Your task to perform on an android device: Set an alarm for 4pm Image 0: 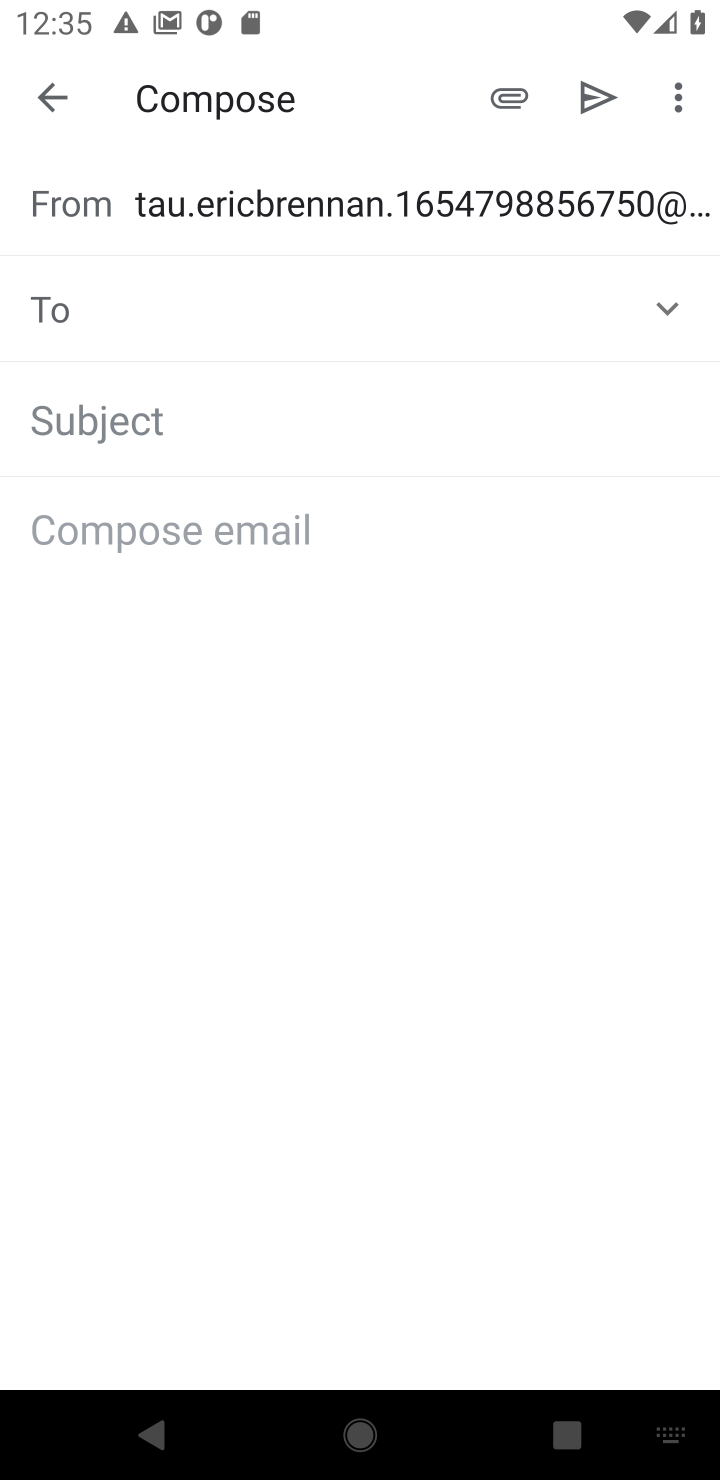
Step 0: press home button
Your task to perform on an android device: Set an alarm for 4pm Image 1: 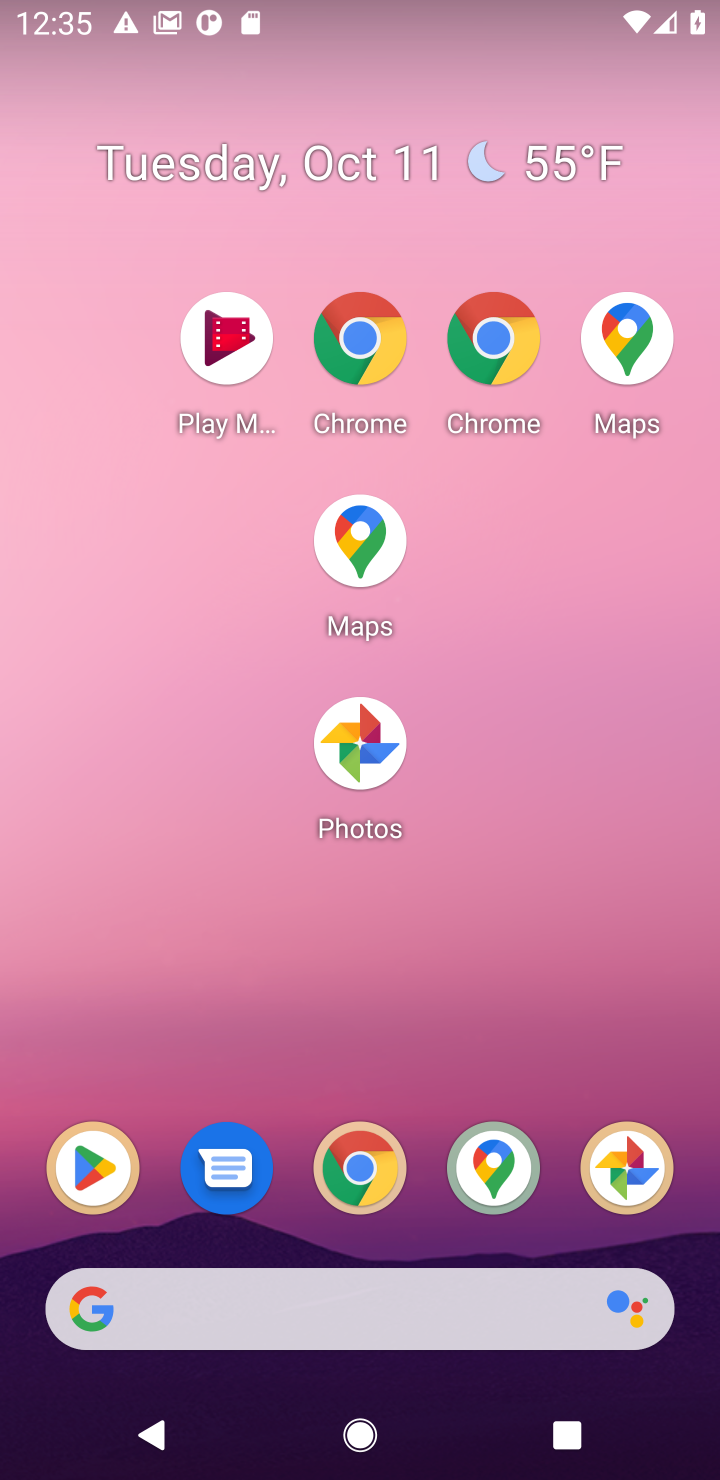
Step 1: drag from (475, 1178) to (436, 519)
Your task to perform on an android device: Set an alarm for 4pm Image 2: 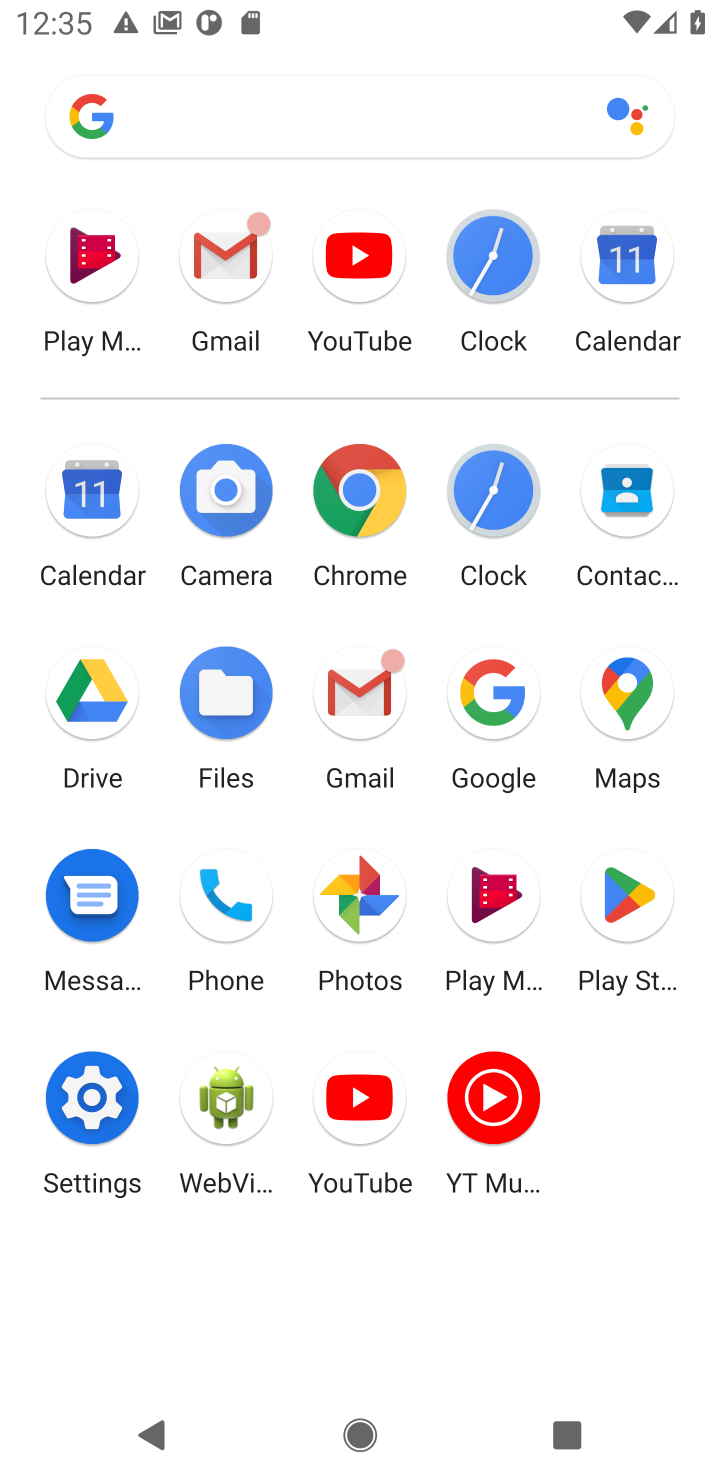
Step 2: click (514, 529)
Your task to perform on an android device: Set an alarm for 4pm Image 3: 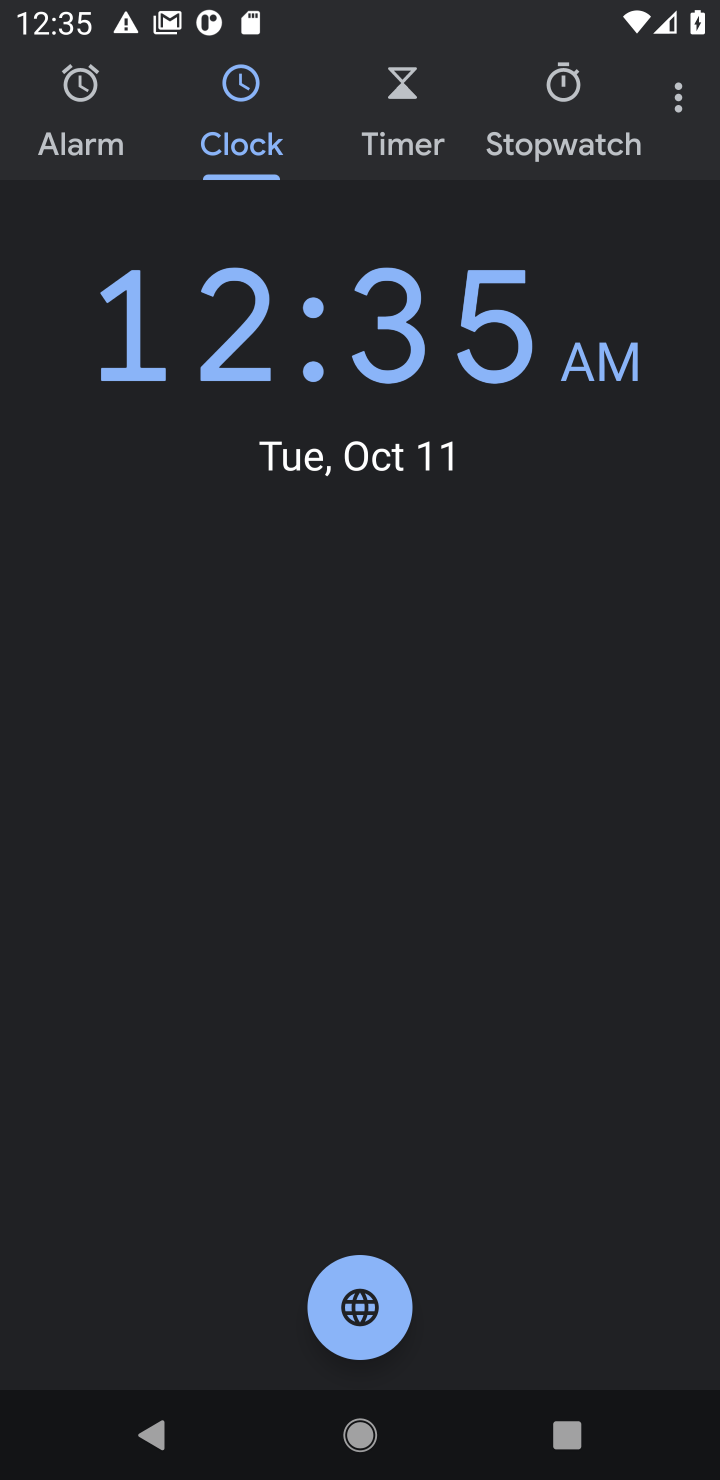
Step 3: click (82, 137)
Your task to perform on an android device: Set an alarm for 4pm Image 4: 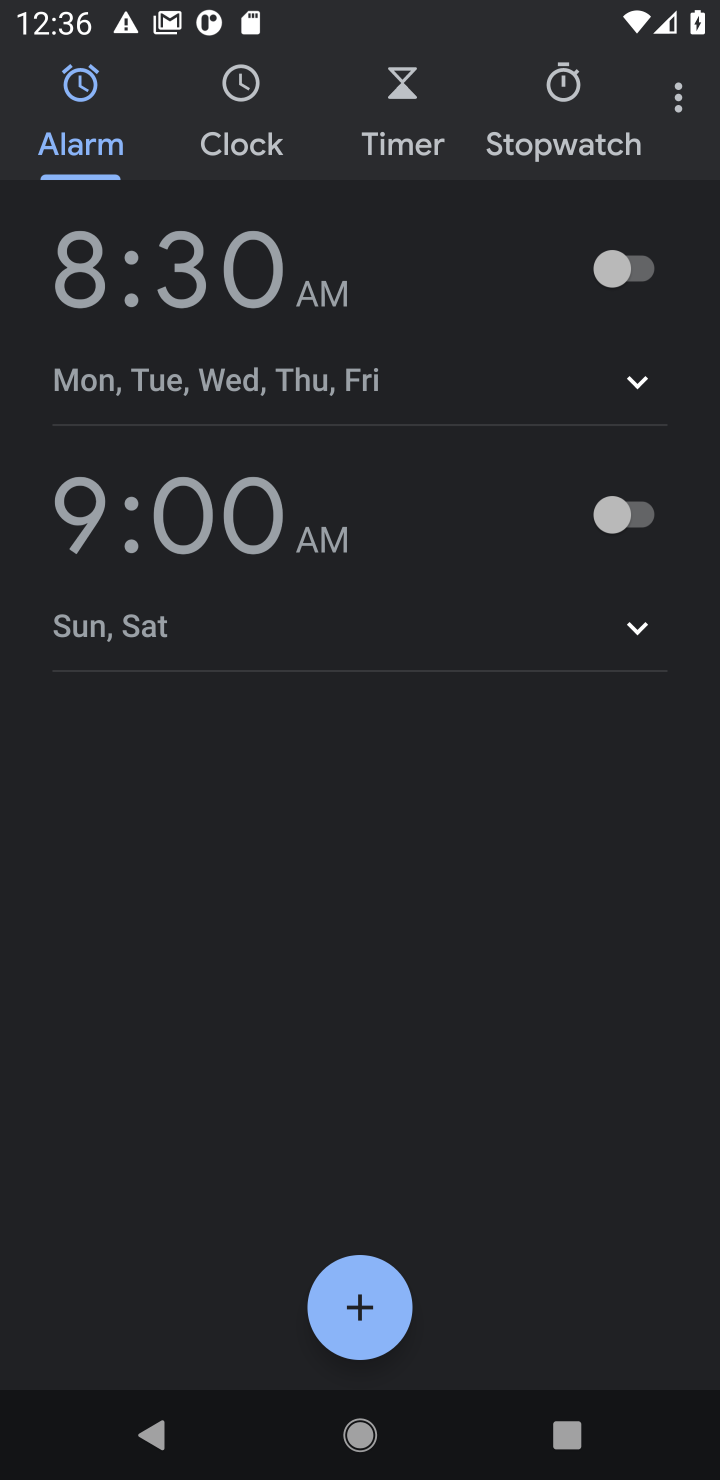
Step 4: click (345, 1312)
Your task to perform on an android device: Set an alarm for 4pm Image 5: 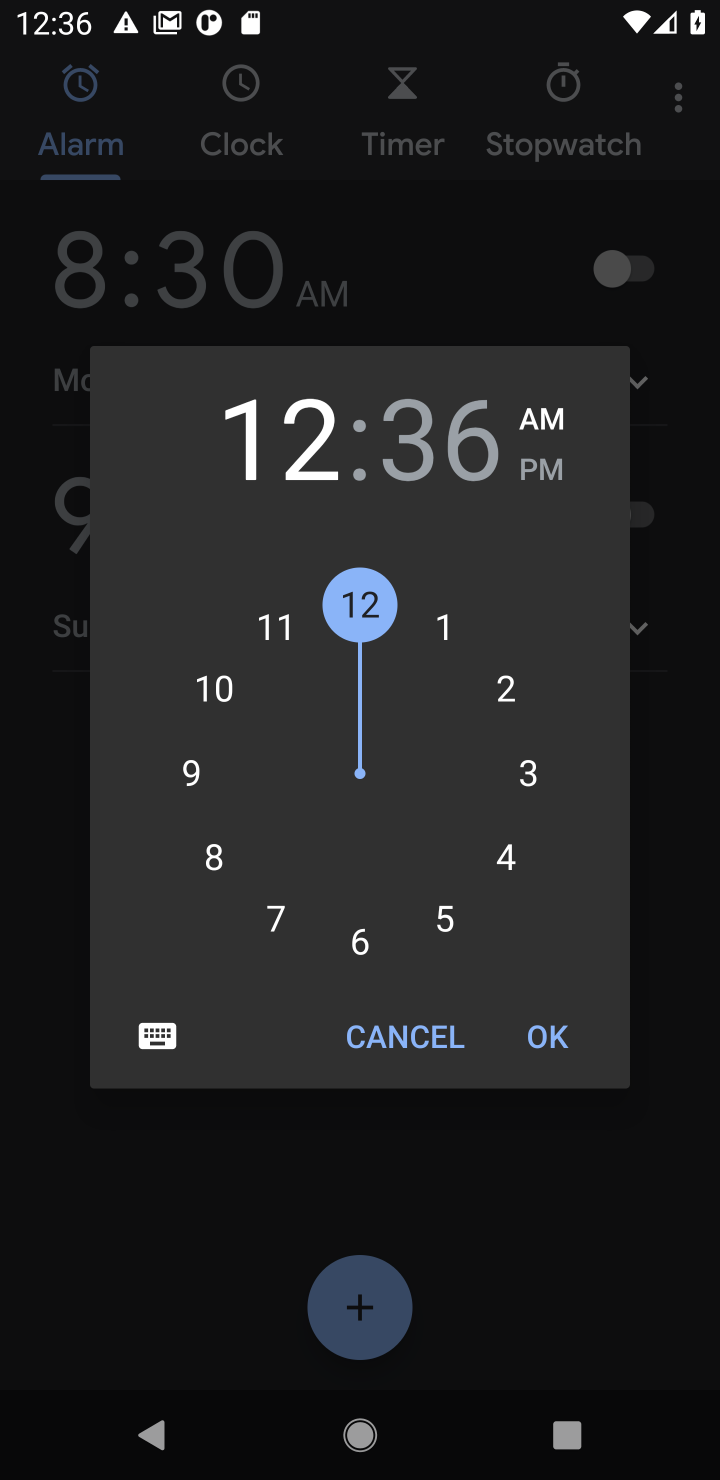
Step 5: click (515, 875)
Your task to perform on an android device: Set an alarm for 4pm Image 6: 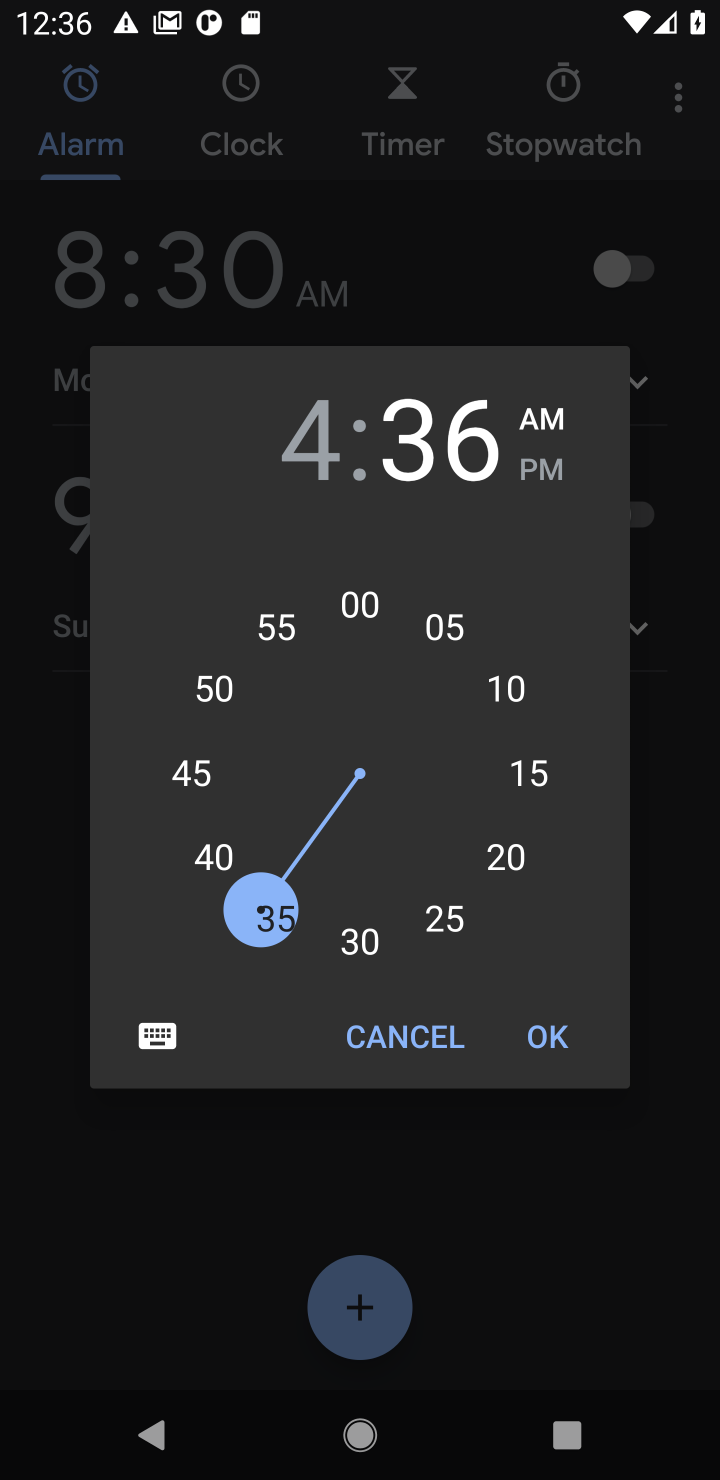
Step 6: click (369, 625)
Your task to perform on an android device: Set an alarm for 4pm Image 7: 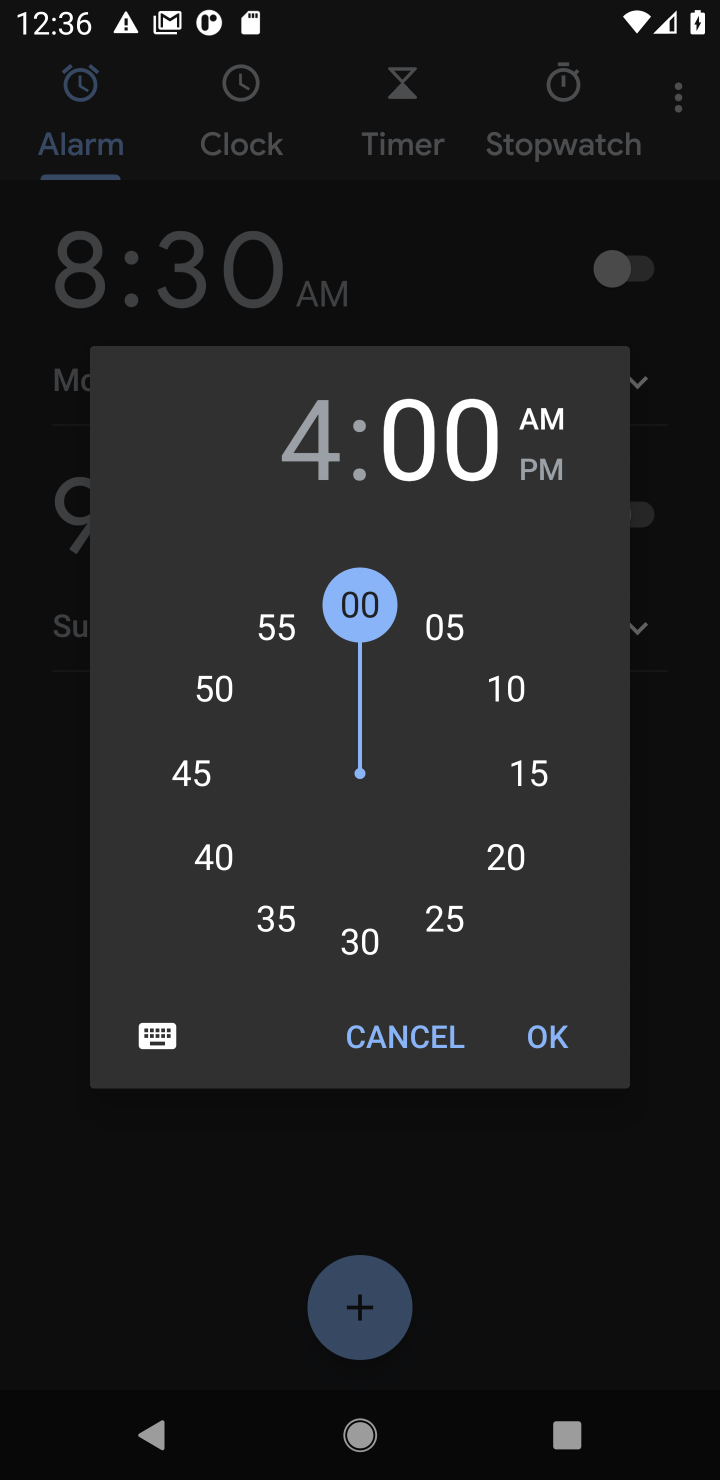
Step 7: click (558, 483)
Your task to perform on an android device: Set an alarm for 4pm Image 8: 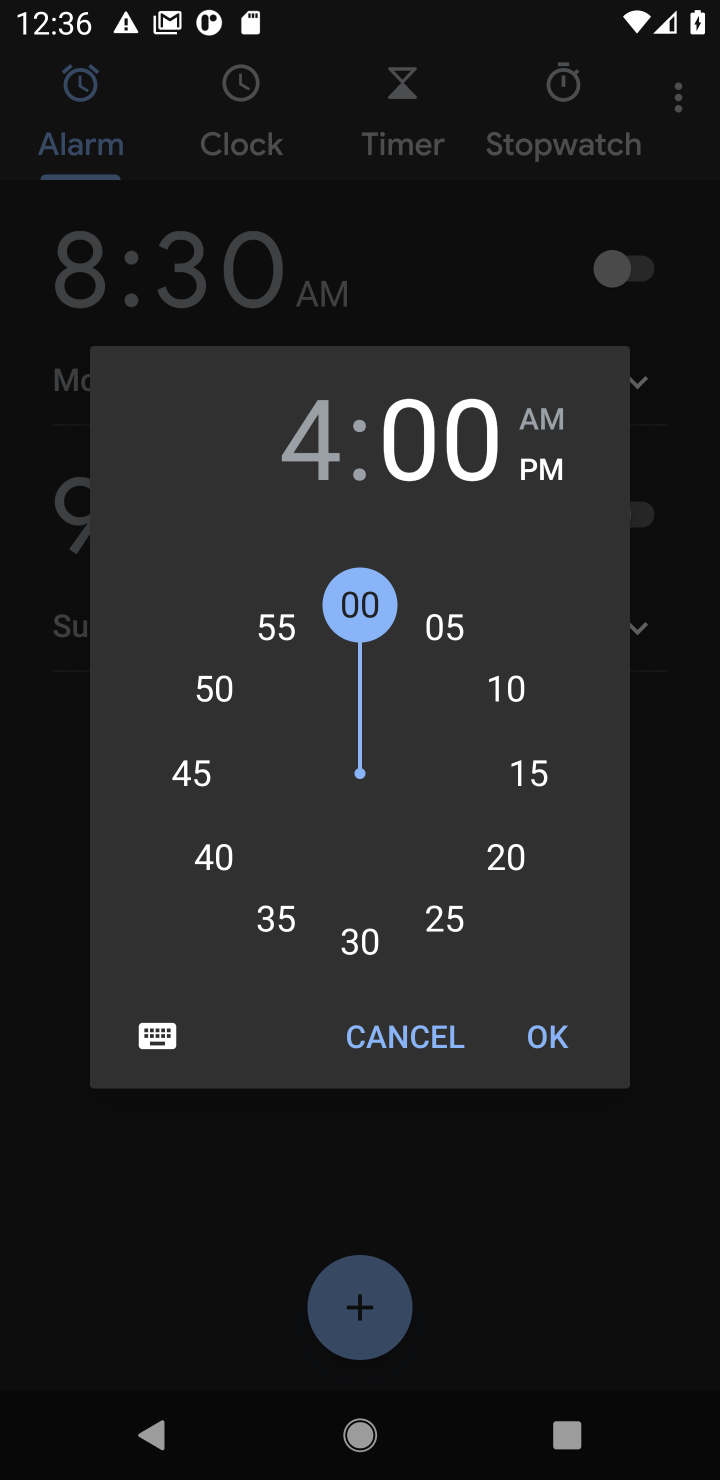
Step 8: click (544, 1044)
Your task to perform on an android device: Set an alarm for 4pm Image 9: 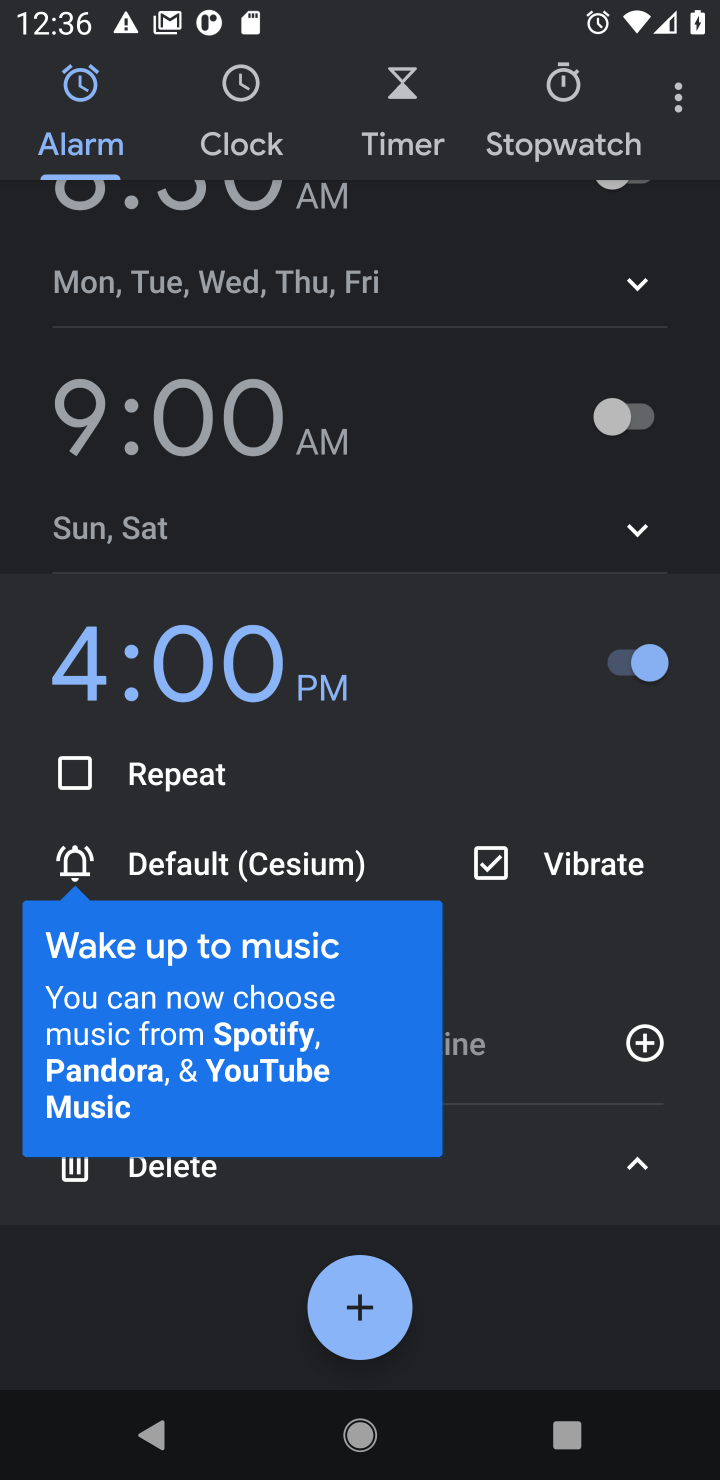
Step 9: task complete